Your task to perform on an android device: Check the news Image 0: 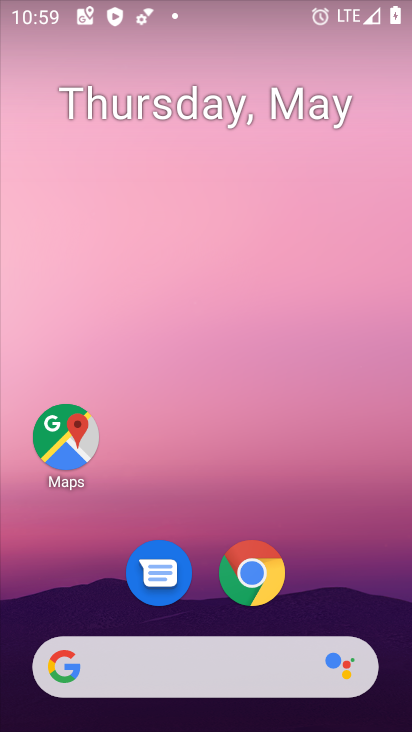
Step 0: click (203, 606)
Your task to perform on an android device: Check the news Image 1: 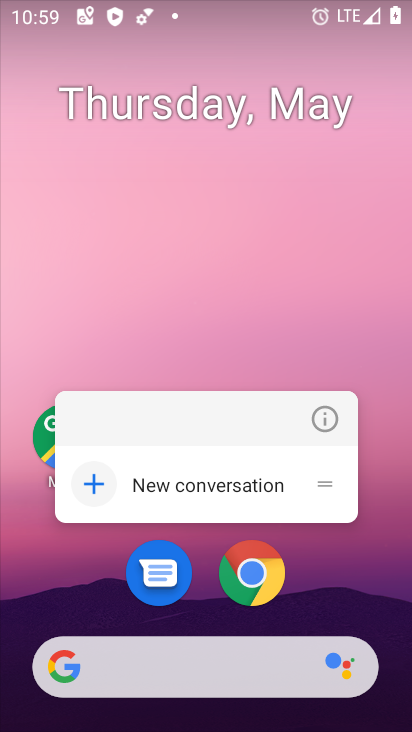
Step 1: click (188, 614)
Your task to perform on an android device: Check the news Image 2: 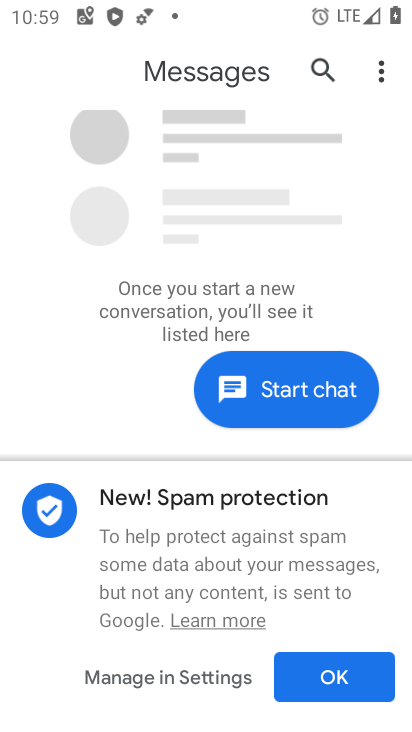
Step 2: press home button
Your task to perform on an android device: Check the news Image 3: 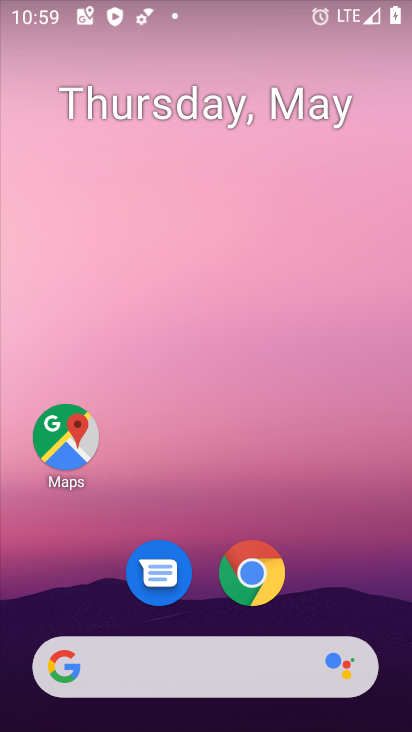
Step 3: drag from (210, 616) to (231, 200)
Your task to perform on an android device: Check the news Image 4: 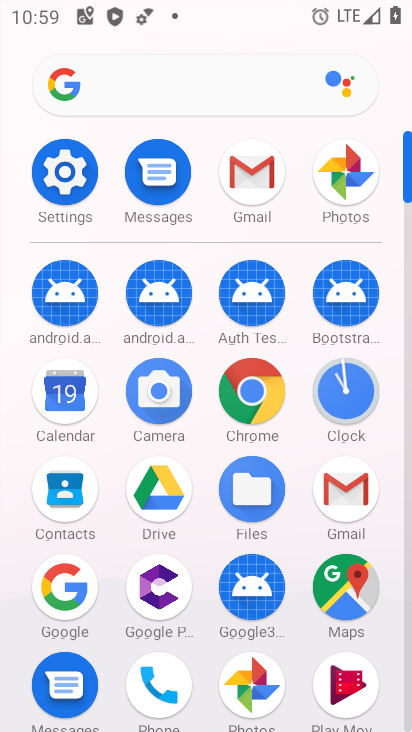
Step 4: click (60, 589)
Your task to perform on an android device: Check the news Image 5: 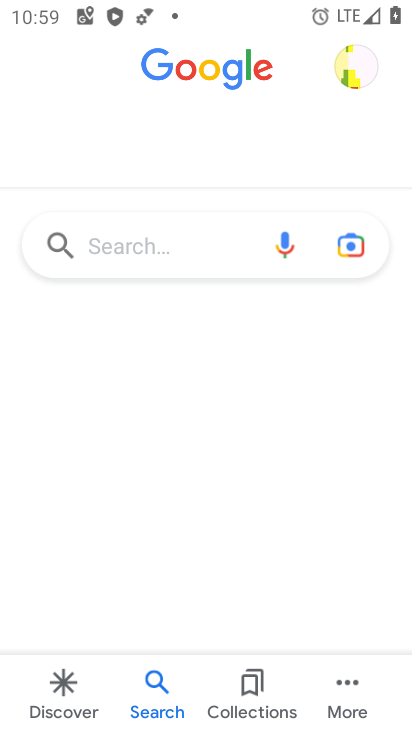
Step 5: click (159, 265)
Your task to perform on an android device: Check the news Image 6: 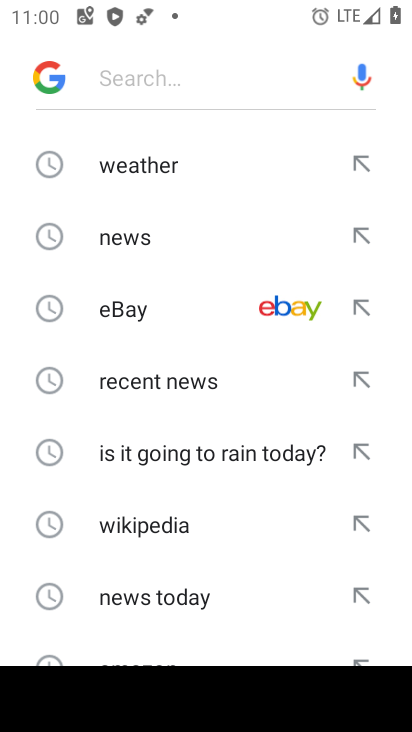
Step 6: click (120, 222)
Your task to perform on an android device: Check the news Image 7: 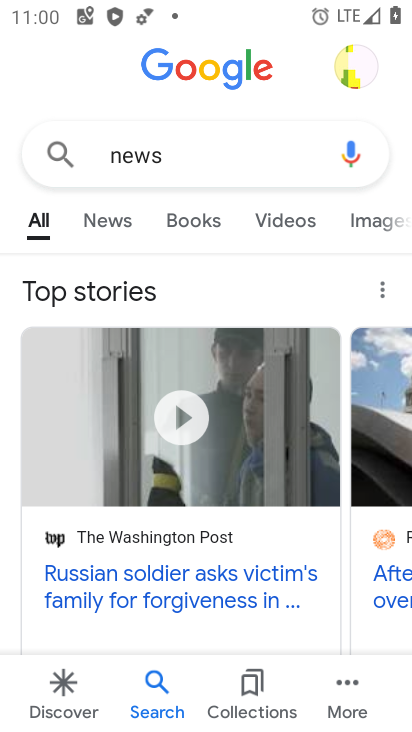
Step 7: click (123, 214)
Your task to perform on an android device: Check the news Image 8: 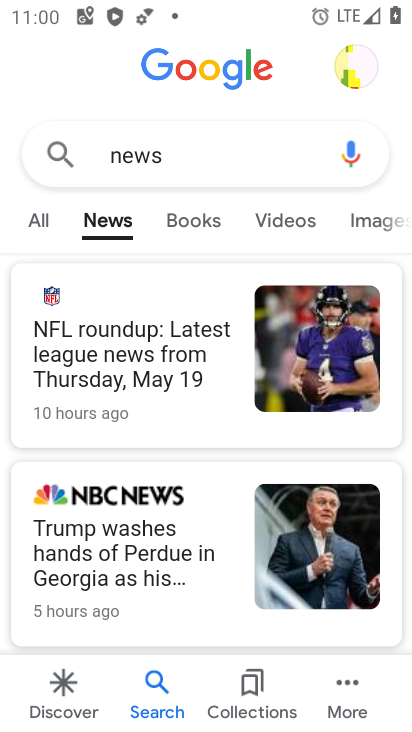
Step 8: task complete